Your task to perform on an android device: Open Chrome and go to the settings page Image 0: 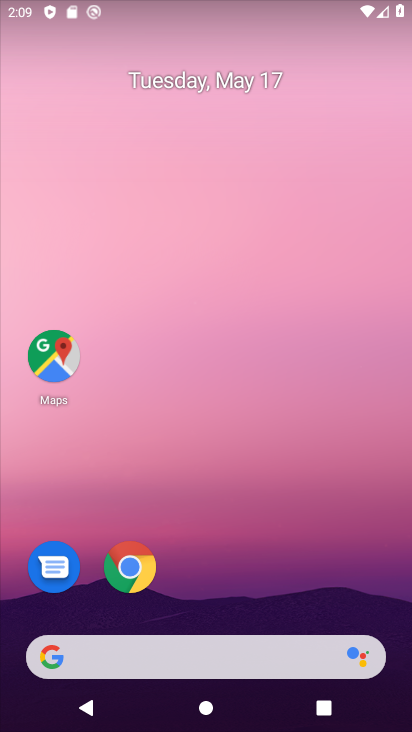
Step 0: click (134, 575)
Your task to perform on an android device: Open Chrome and go to the settings page Image 1: 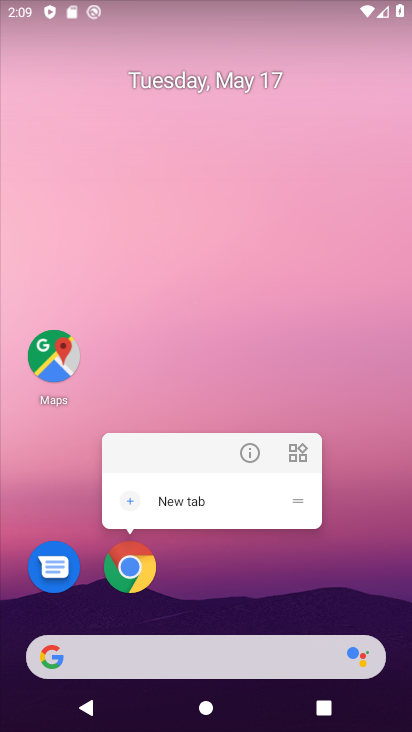
Step 1: click (119, 584)
Your task to perform on an android device: Open Chrome and go to the settings page Image 2: 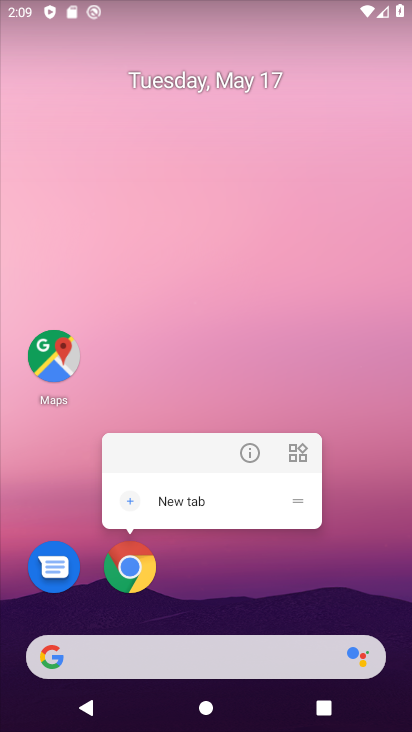
Step 2: click (153, 563)
Your task to perform on an android device: Open Chrome and go to the settings page Image 3: 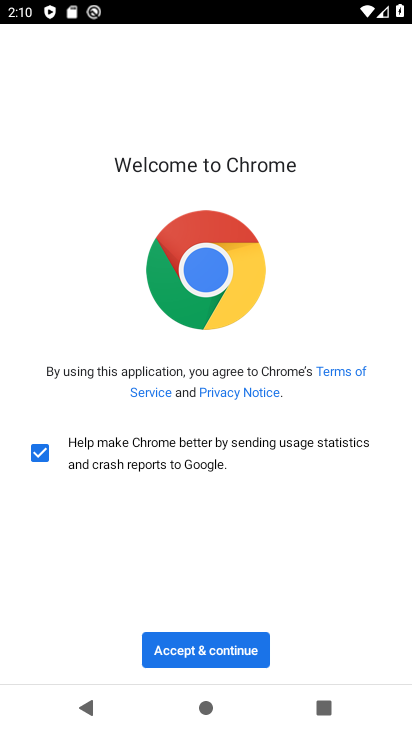
Step 3: click (209, 629)
Your task to perform on an android device: Open Chrome and go to the settings page Image 4: 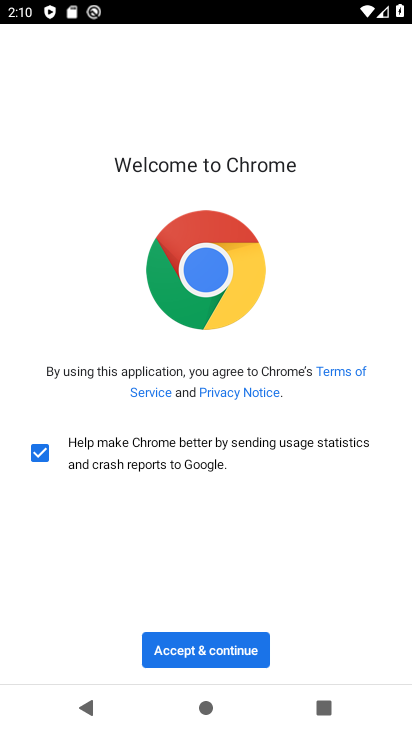
Step 4: click (216, 640)
Your task to perform on an android device: Open Chrome and go to the settings page Image 5: 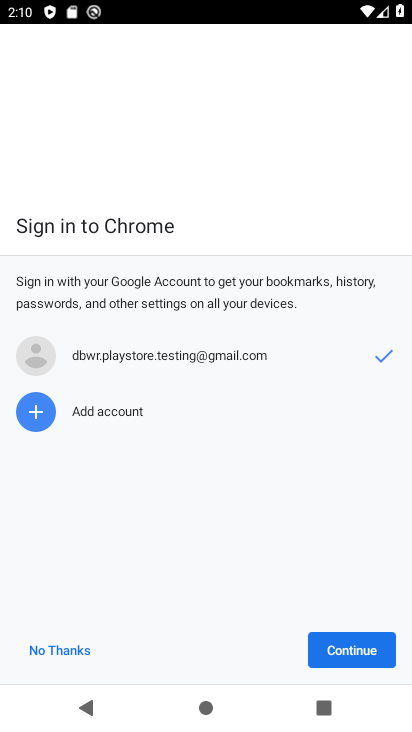
Step 5: click (324, 655)
Your task to perform on an android device: Open Chrome and go to the settings page Image 6: 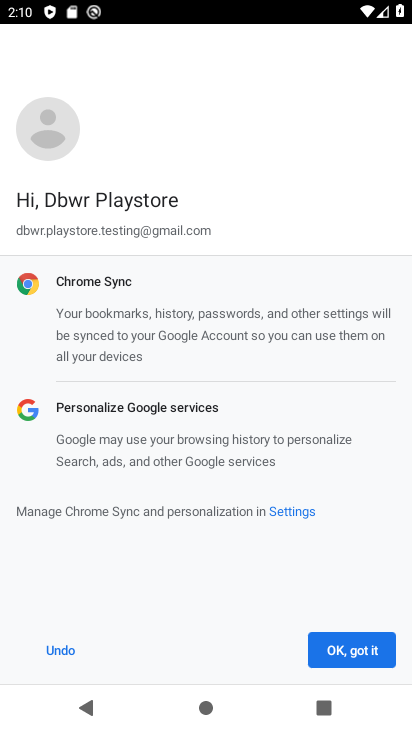
Step 6: click (335, 648)
Your task to perform on an android device: Open Chrome and go to the settings page Image 7: 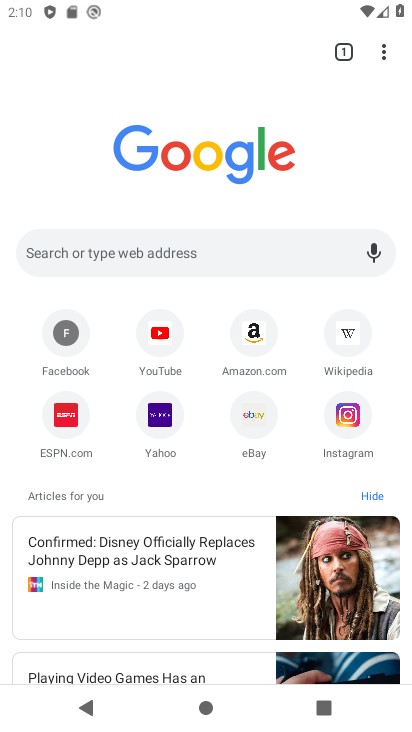
Step 7: click (385, 52)
Your task to perform on an android device: Open Chrome and go to the settings page Image 8: 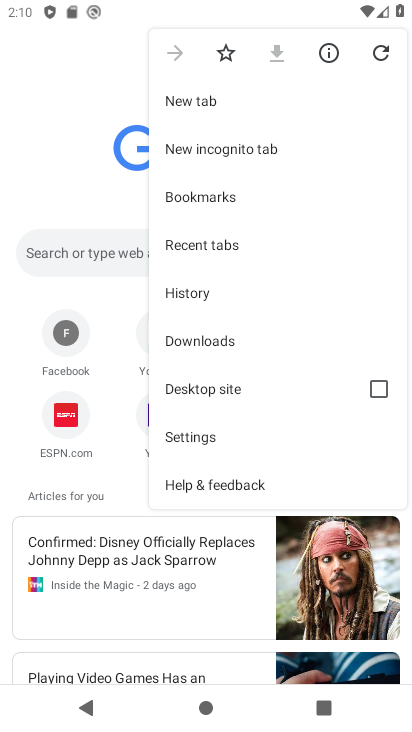
Step 8: click (219, 423)
Your task to perform on an android device: Open Chrome and go to the settings page Image 9: 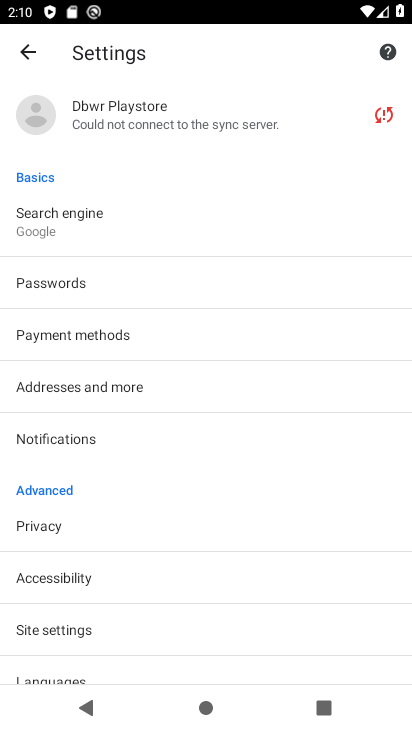
Step 9: task complete